Your task to perform on an android device: Open calendar and show me the third week of next month Image 0: 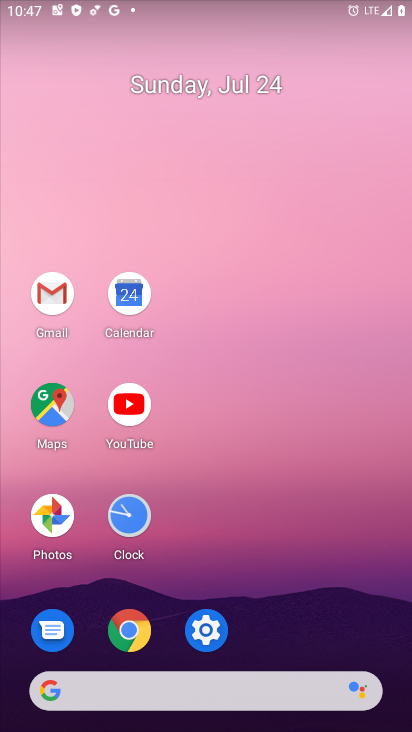
Step 0: click (128, 299)
Your task to perform on an android device: Open calendar and show me the third week of next month Image 1: 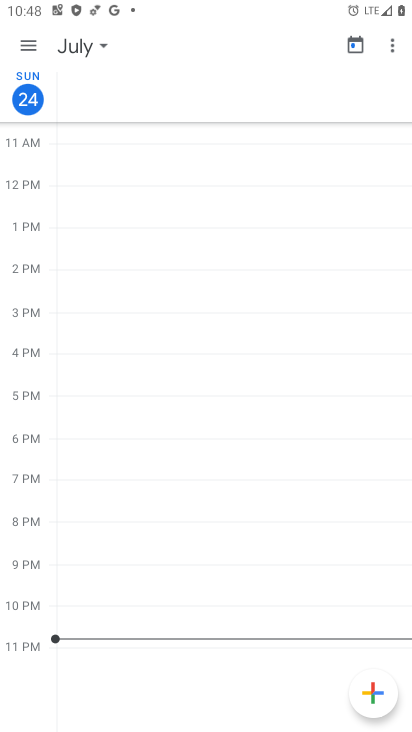
Step 1: click (26, 42)
Your task to perform on an android device: Open calendar and show me the third week of next month Image 2: 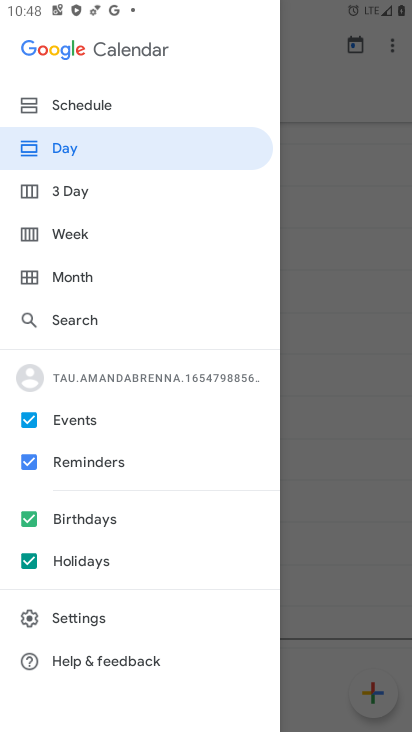
Step 2: click (71, 232)
Your task to perform on an android device: Open calendar and show me the third week of next month Image 3: 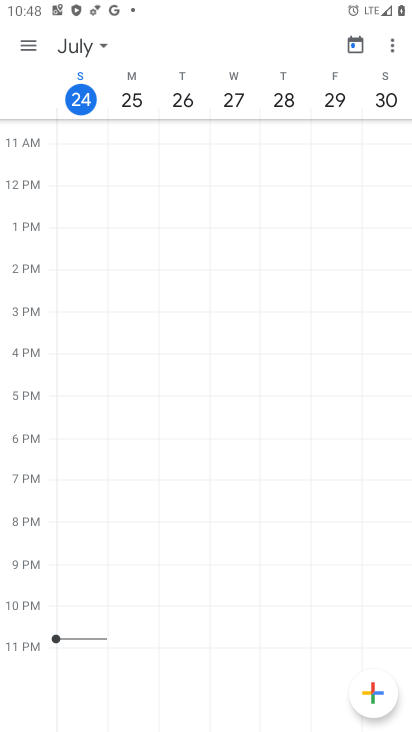
Step 3: click (100, 42)
Your task to perform on an android device: Open calendar and show me the third week of next month Image 4: 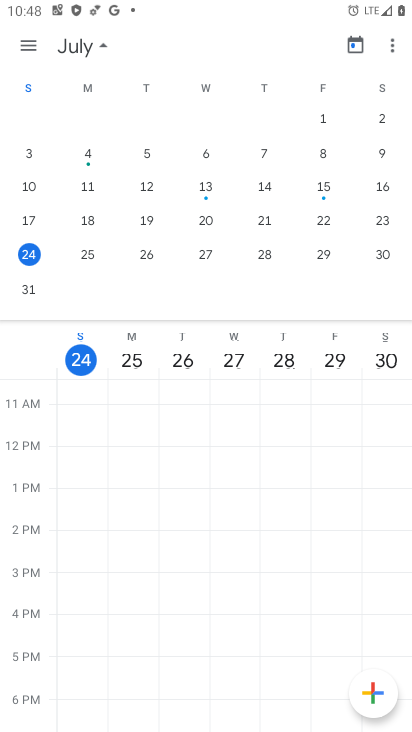
Step 4: drag from (360, 192) to (60, 159)
Your task to perform on an android device: Open calendar and show me the third week of next month Image 5: 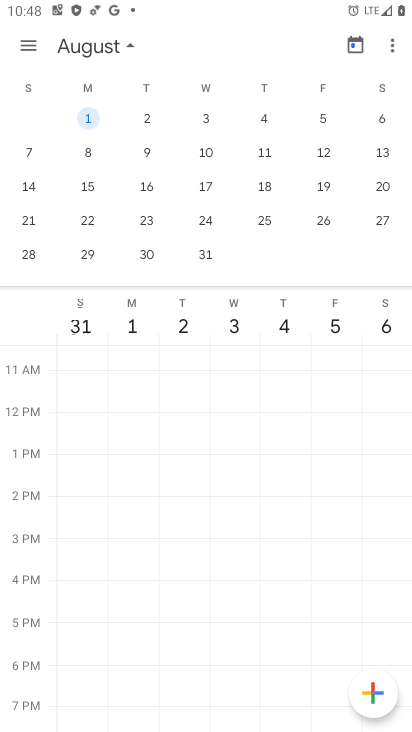
Step 5: click (84, 188)
Your task to perform on an android device: Open calendar and show me the third week of next month Image 6: 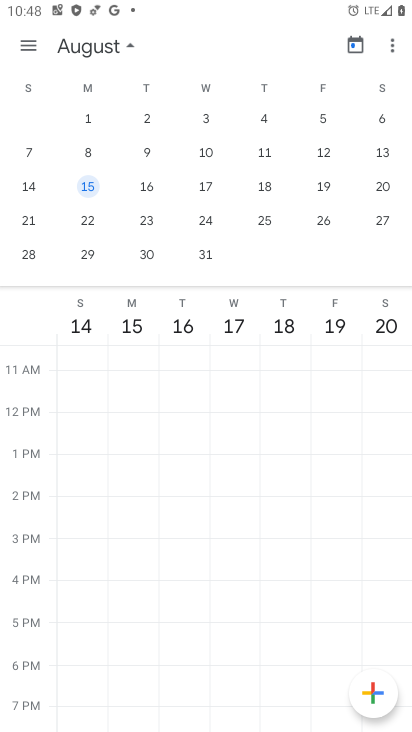
Step 6: task complete